Your task to perform on an android device: Open maps Image 0: 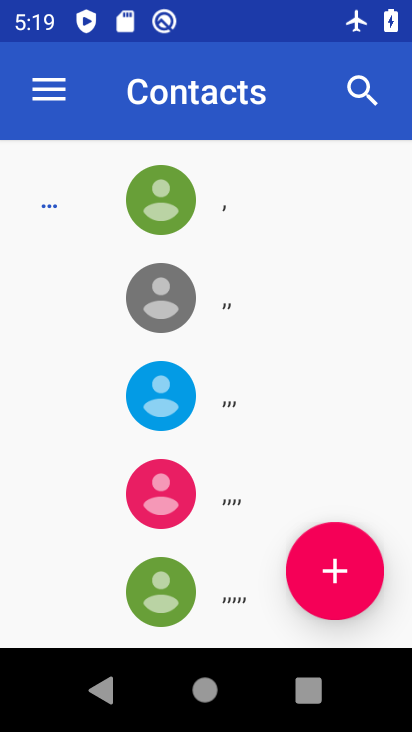
Step 0: press home button
Your task to perform on an android device: Open maps Image 1: 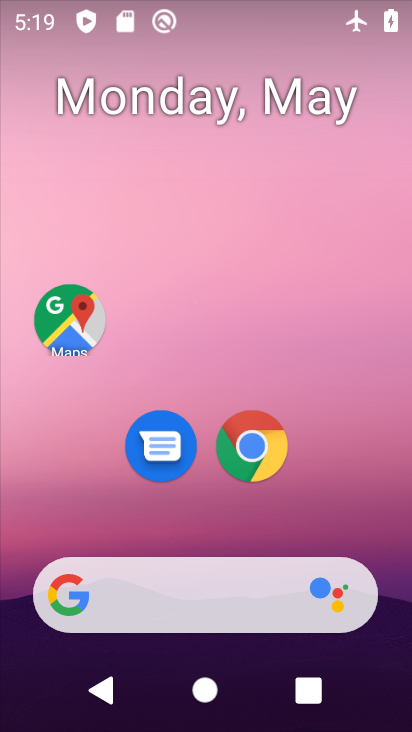
Step 1: click (62, 325)
Your task to perform on an android device: Open maps Image 2: 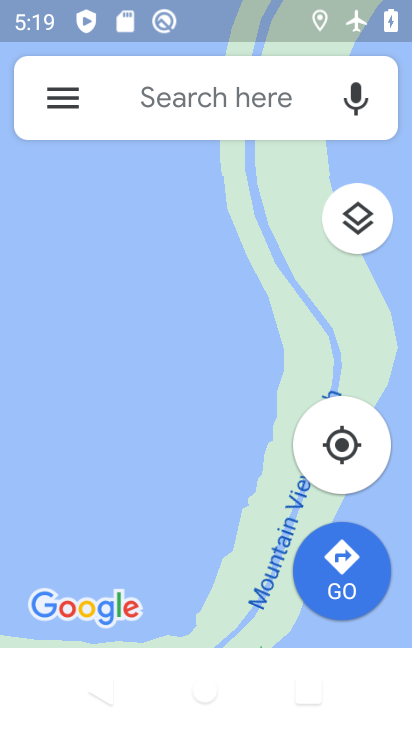
Step 2: task complete